Your task to perform on an android device: Go to sound settings Image 0: 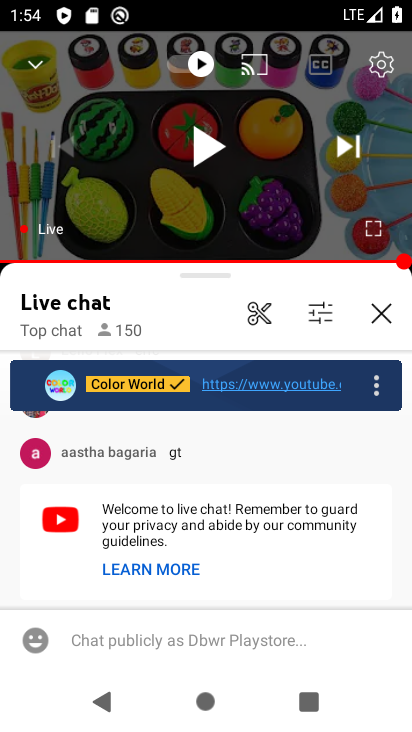
Step 0: press home button
Your task to perform on an android device: Go to sound settings Image 1: 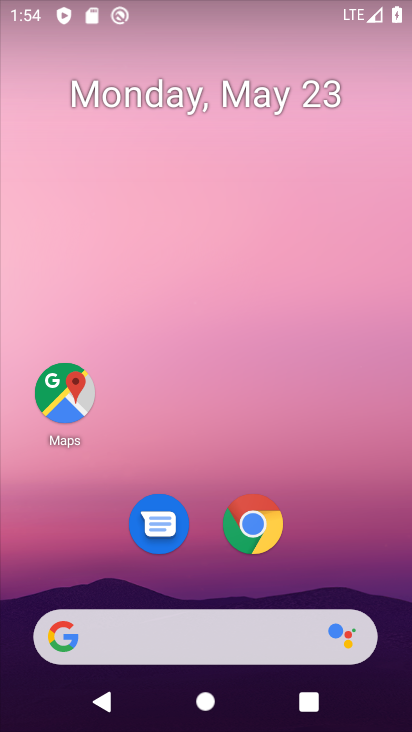
Step 1: drag from (220, 440) to (238, 31)
Your task to perform on an android device: Go to sound settings Image 2: 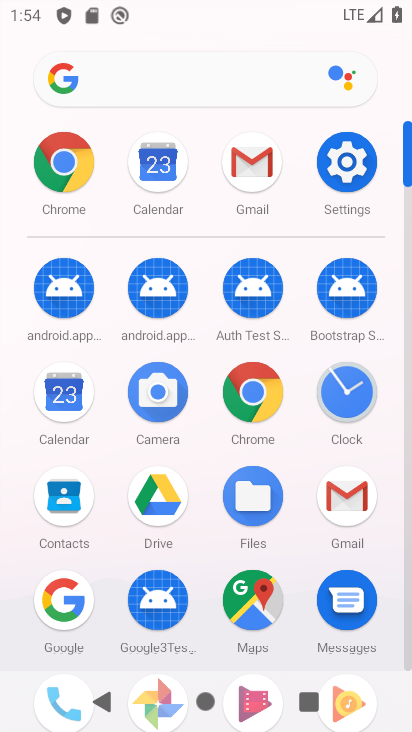
Step 2: click (349, 157)
Your task to perform on an android device: Go to sound settings Image 3: 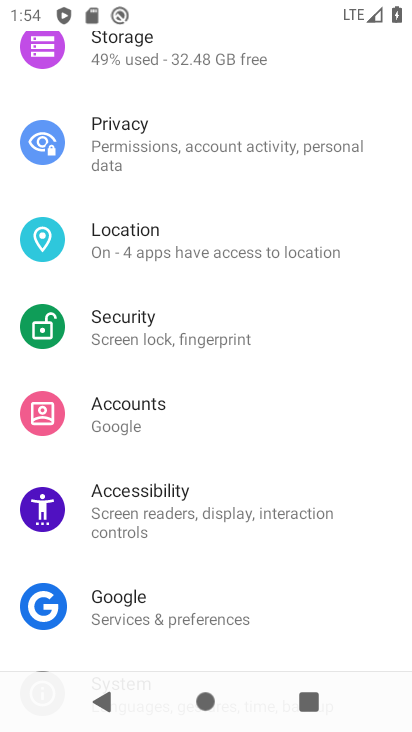
Step 3: drag from (238, 209) to (243, 612)
Your task to perform on an android device: Go to sound settings Image 4: 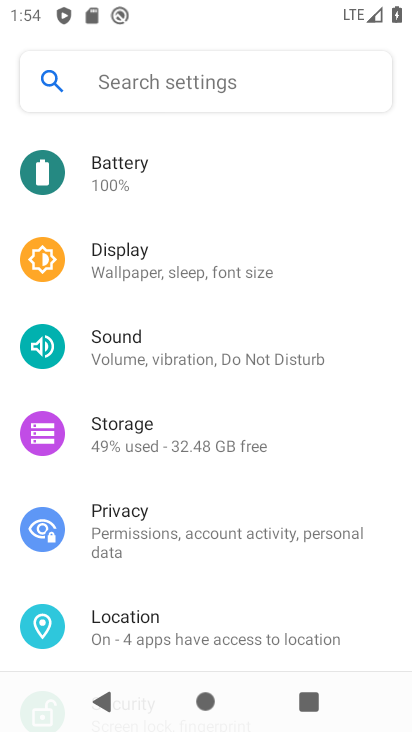
Step 4: click (242, 337)
Your task to perform on an android device: Go to sound settings Image 5: 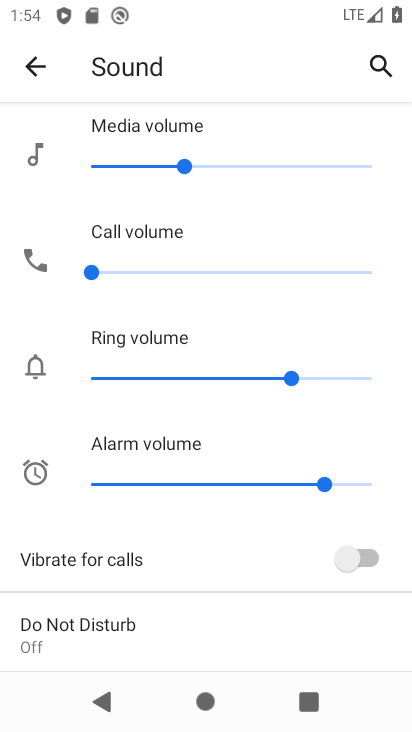
Step 5: task complete